Your task to perform on an android device: toggle priority inbox in the gmail app Image 0: 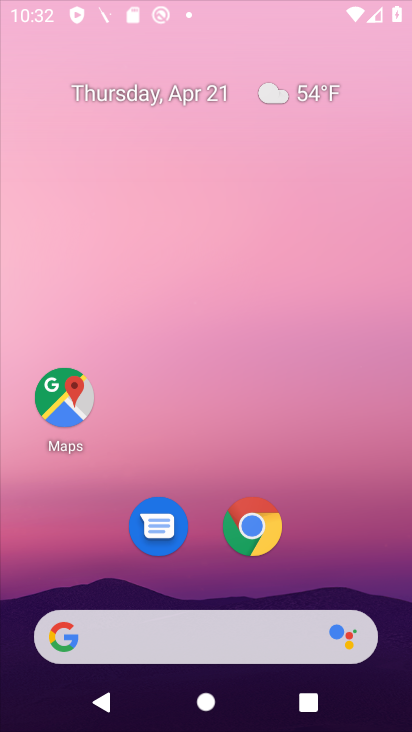
Step 0: click (305, 149)
Your task to perform on an android device: toggle priority inbox in the gmail app Image 1: 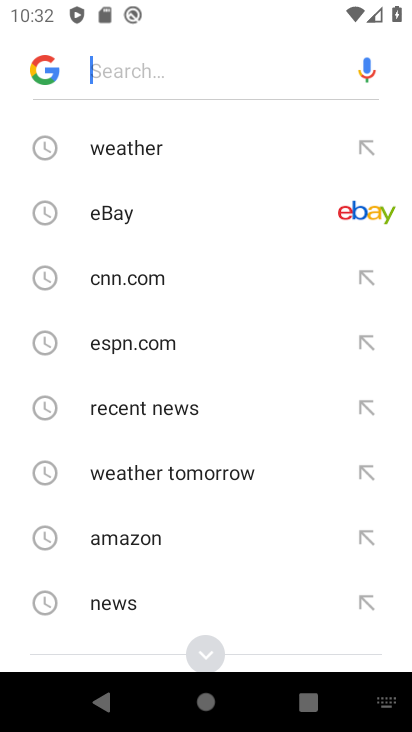
Step 1: press home button
Your task to perform on an android device: toggle priority inbox in the gmail app Image 2: 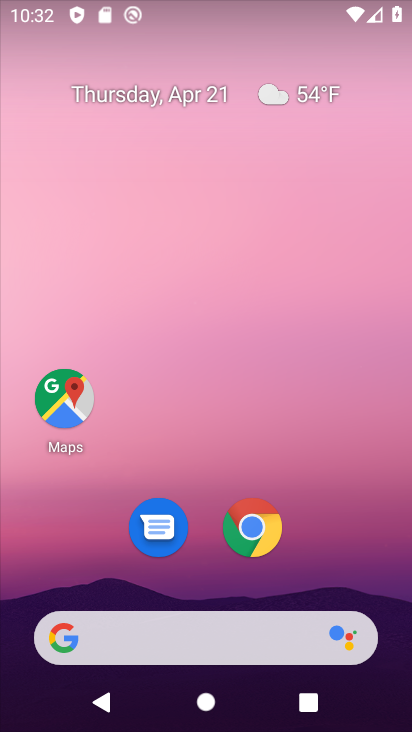
Step 2: drag from (310, 543) to (300, 93)
Your task to perform on an android device: toggle priority inbox in the gmail app Image 3: 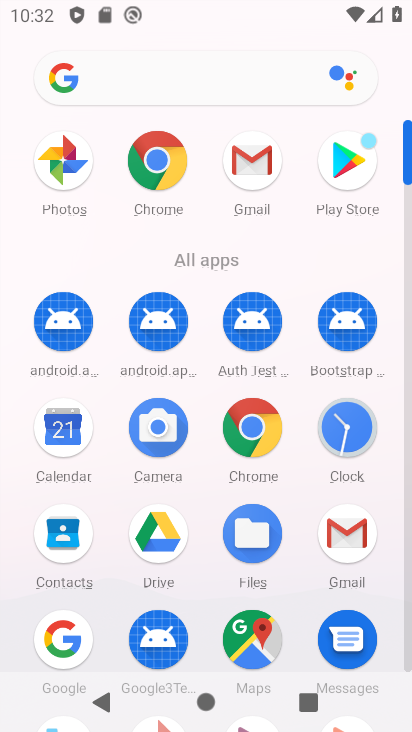
Step 3: click (245, 173)
Your task to perform on an android device: toggle priority inbox in the gmail app Image 4: 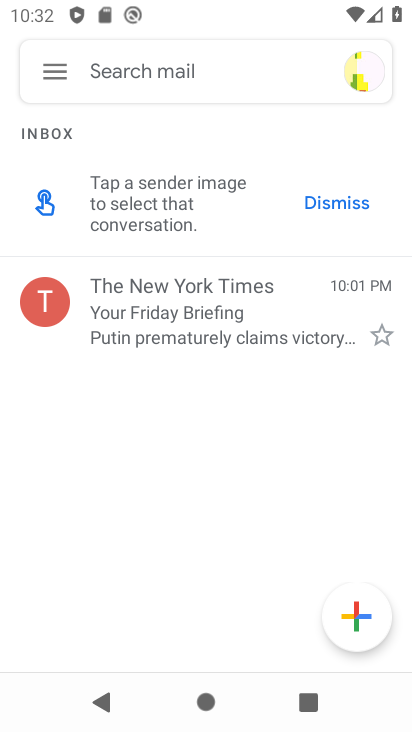
Step 4: click (57, 75)
Your task to perform on an android device: toggle priority inbox in the gmail app Image 5: 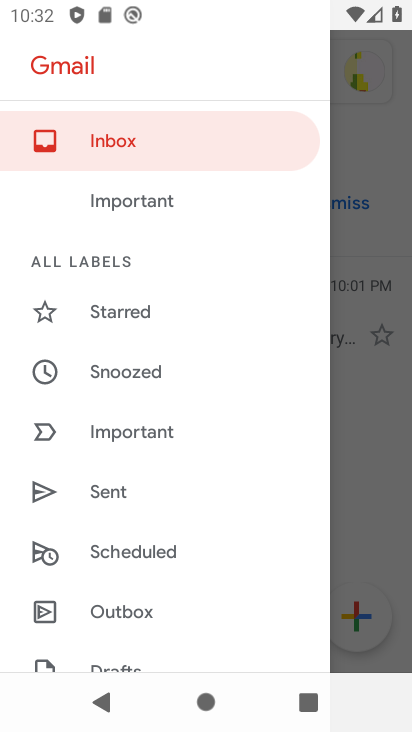
Step 5: drag from (180, 600) to (162, 106)
Your task to perform on an android device: toggle priority inbox in the gmail app Image 6: 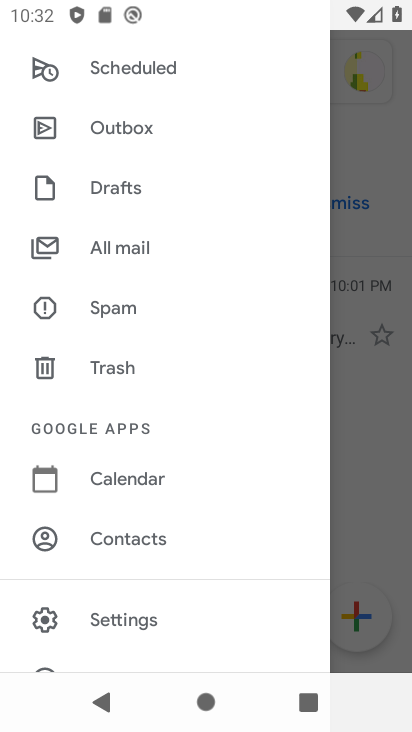
Step 6: click (129, 612)
Your task to perform on an android device: toggle priority inbox in the gmail app Image 7: 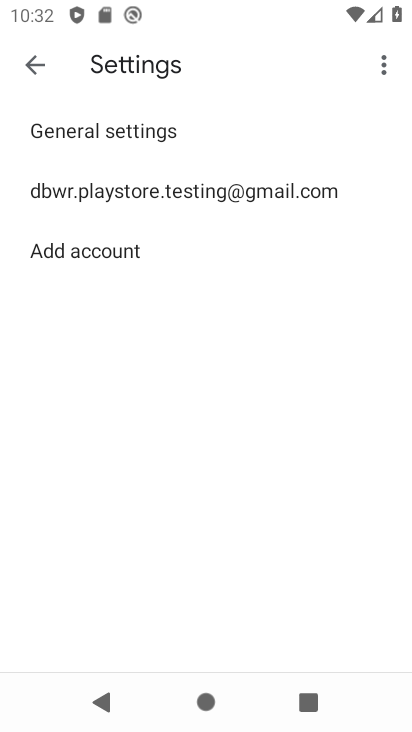
Step 7: click (117, 194)
Your task to perform on an android device: toggle priority inbox in the gmail app Image 8: 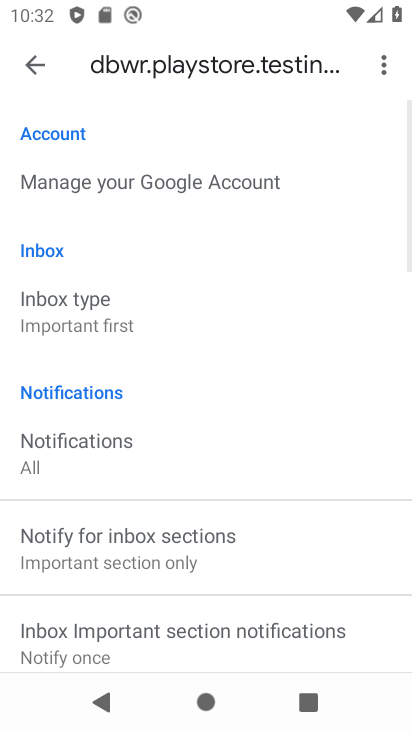
Step 8: click (105, 309)
Your task to perform on an android device: toggle priority inbox in the gmail app Image 9: 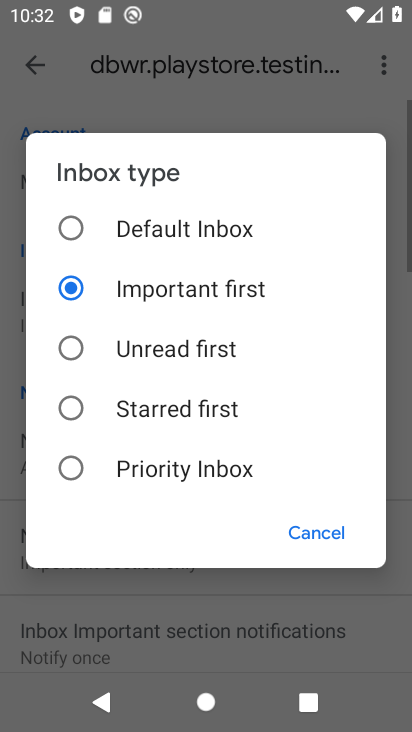
Step 9: click (165, 465)
Your task to perform on an android device: toggle priority inbox in the gmail app Image 10: 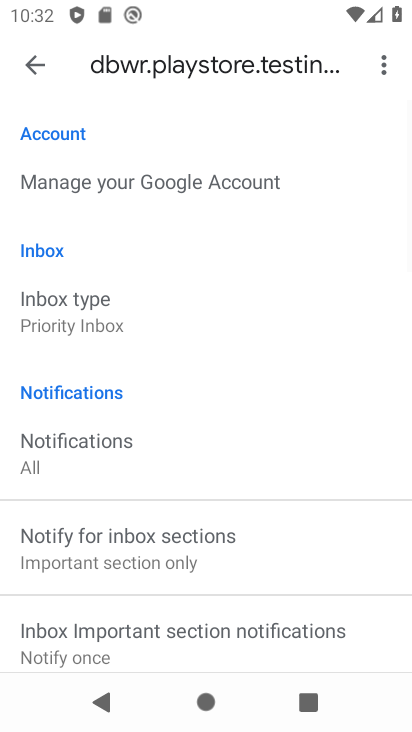
Step 10: task complete